Your task to perform on an android device: Go to Google Image 0: 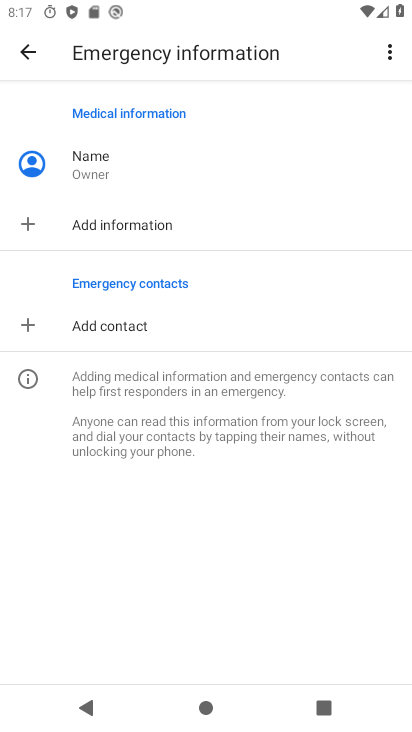
Step 0: press home button
Your task to perform on an android device: Go to Google Image 1: 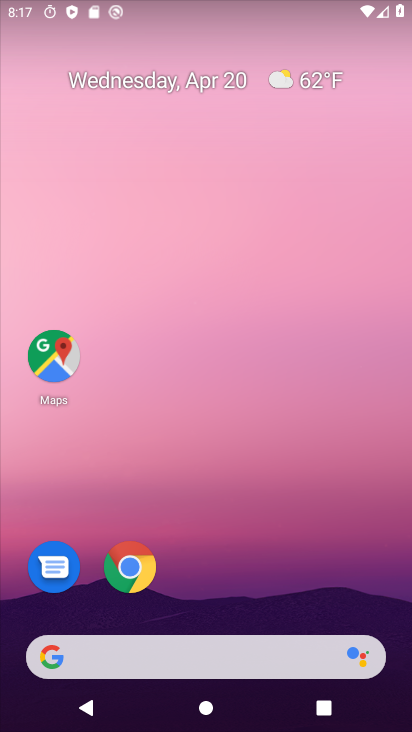
Step 1: drag from (153, 657) to (278, 27)
Your task to perform on an android device: Go to Google Image 2: 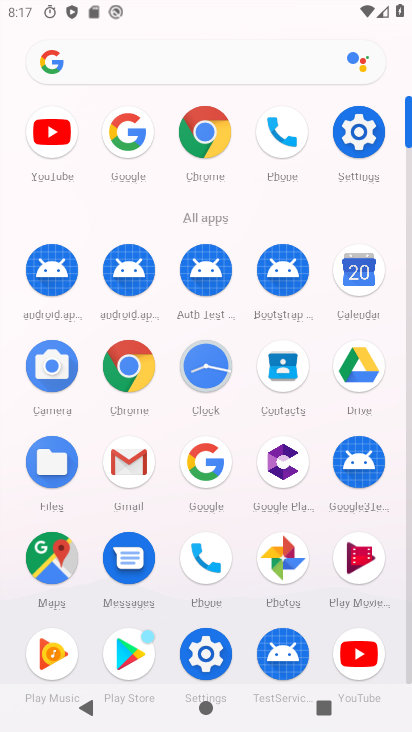
Step 2: click (201, 478)
Your task to perform on an android device: Go to Google Image 3: 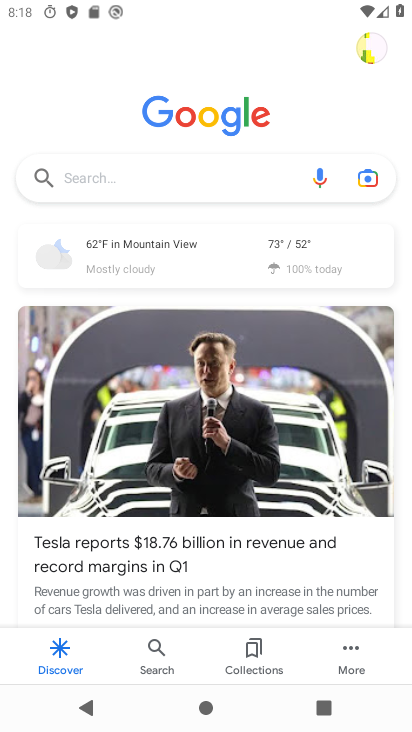
Step 3: task complete